Your task to perform on an android device: Go to eBay Image 0: 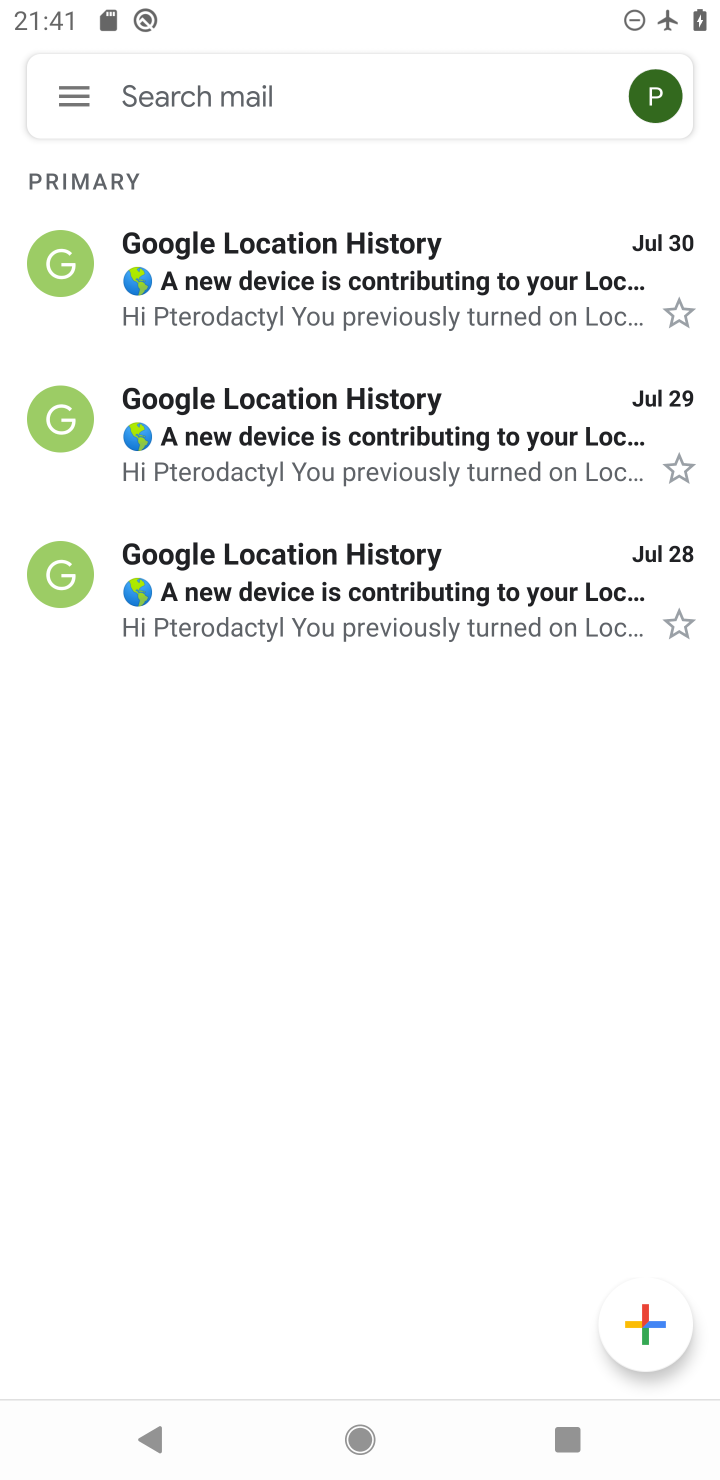
Step 0: press home button
Your task to perform on an android device: Go to eBay Image 1: 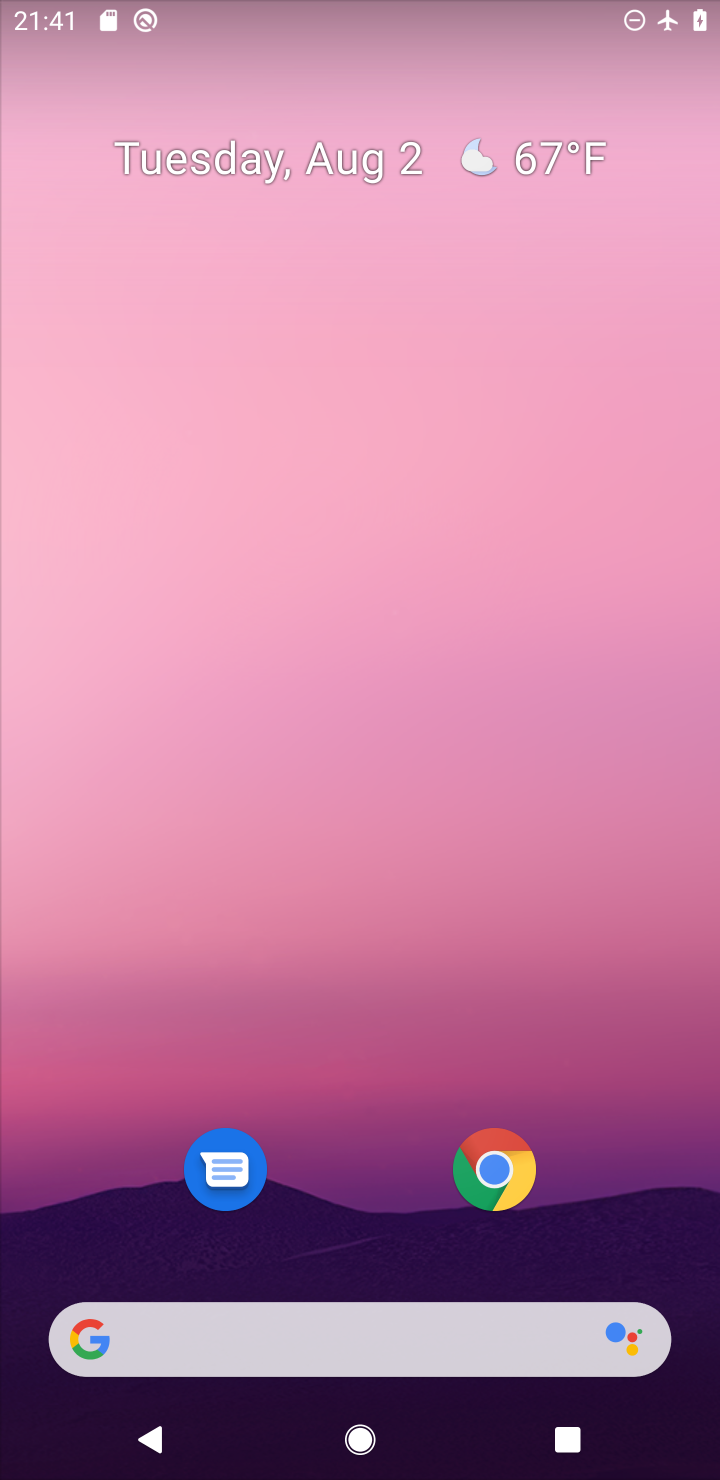
Step 1: drag from (375, 965) to (326, 69)
Your task to perform on an android device: Go to eBay Image 2: 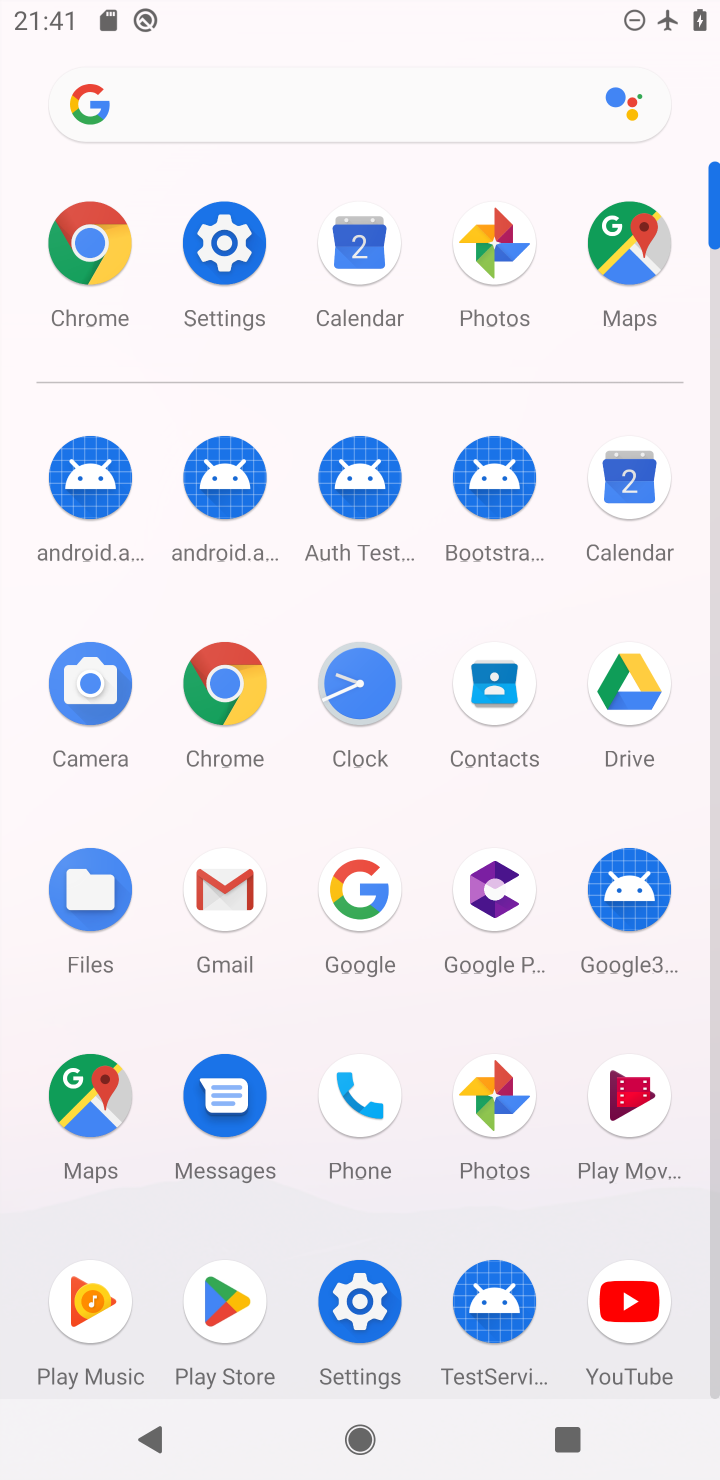
Step 2: click (77, 252)
Your task to perform on an android device: Go to eBay Image 3: 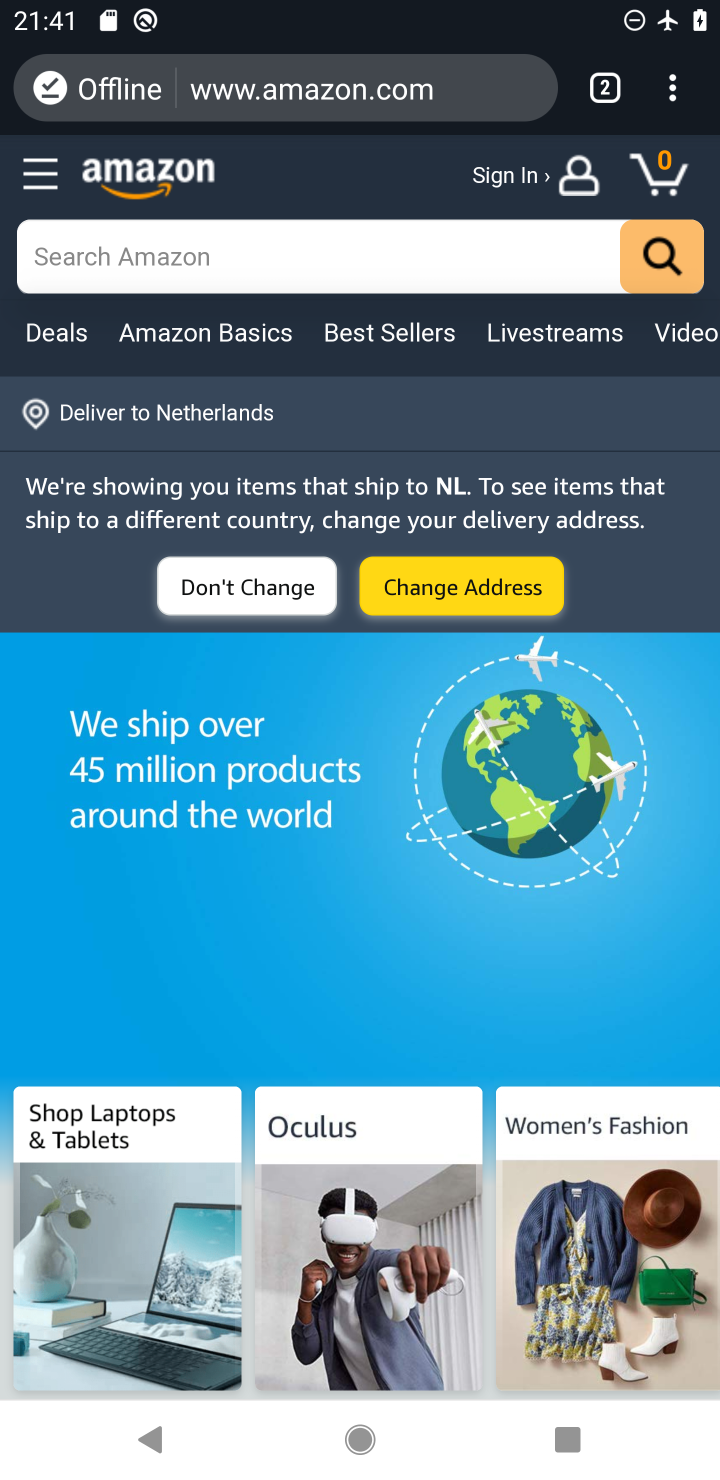
Step 3: click (676, 105)
Your task to perform on an android device: Go to eBay Image 4: 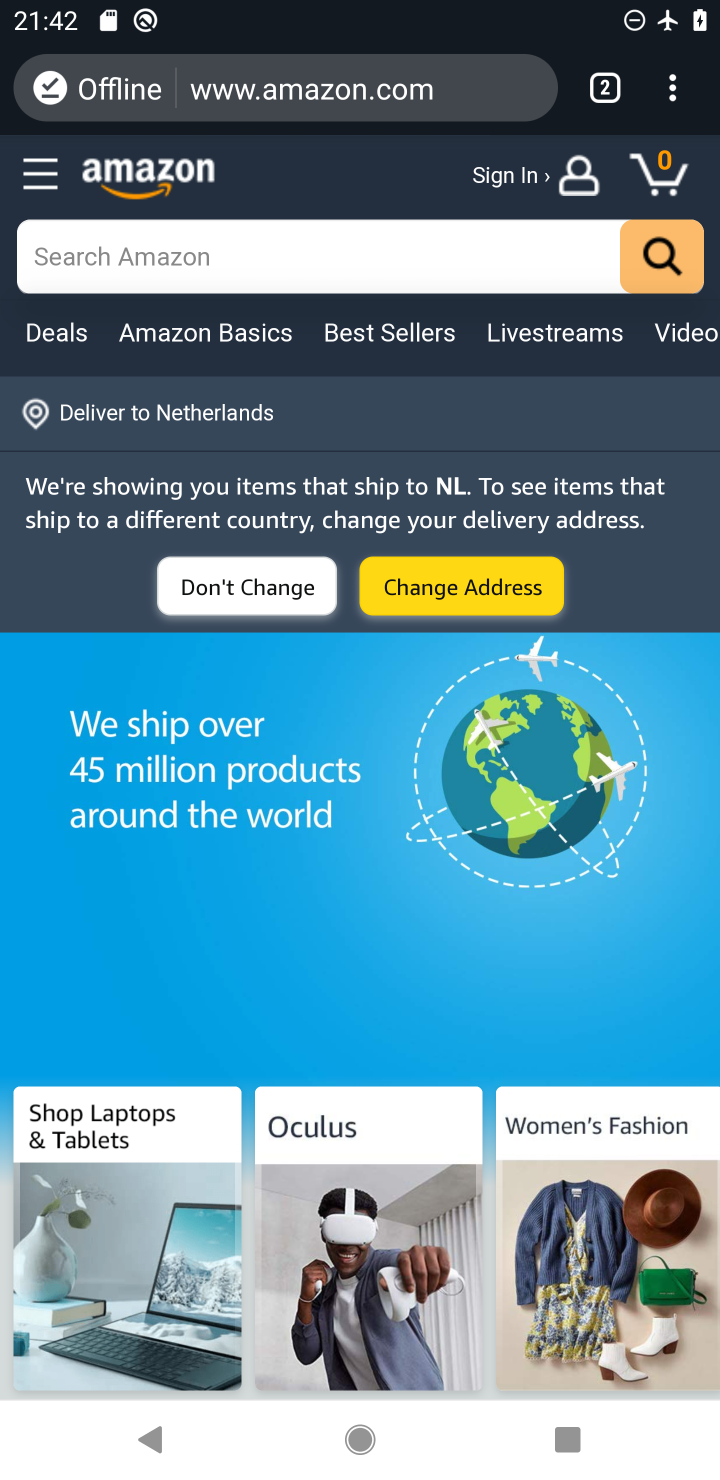
Step 4: drag from (676, 107) to (391, 177)
Your task to perform on an android device: Go to eBay Image 5: 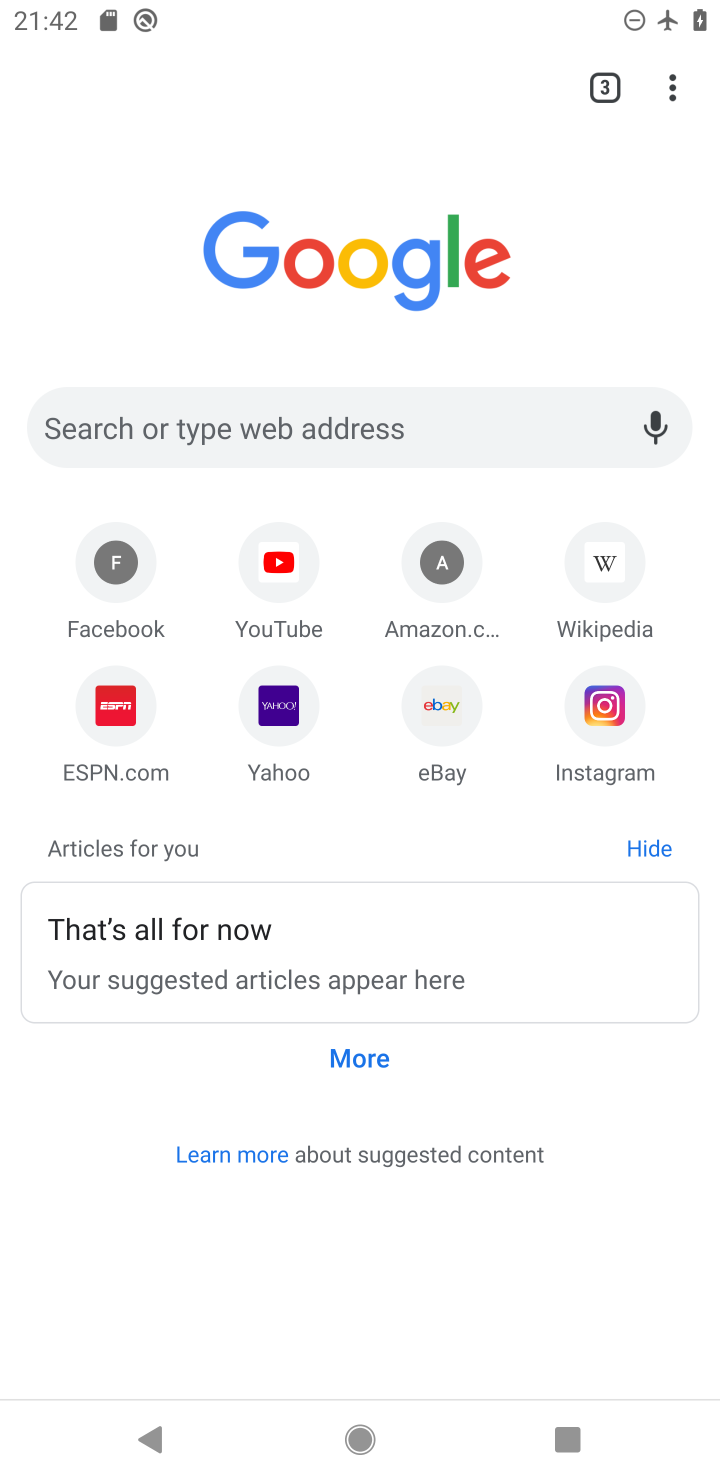
Step 5: click (439, 709)
Your task to perform on an android device: Go to eBay Image 6: 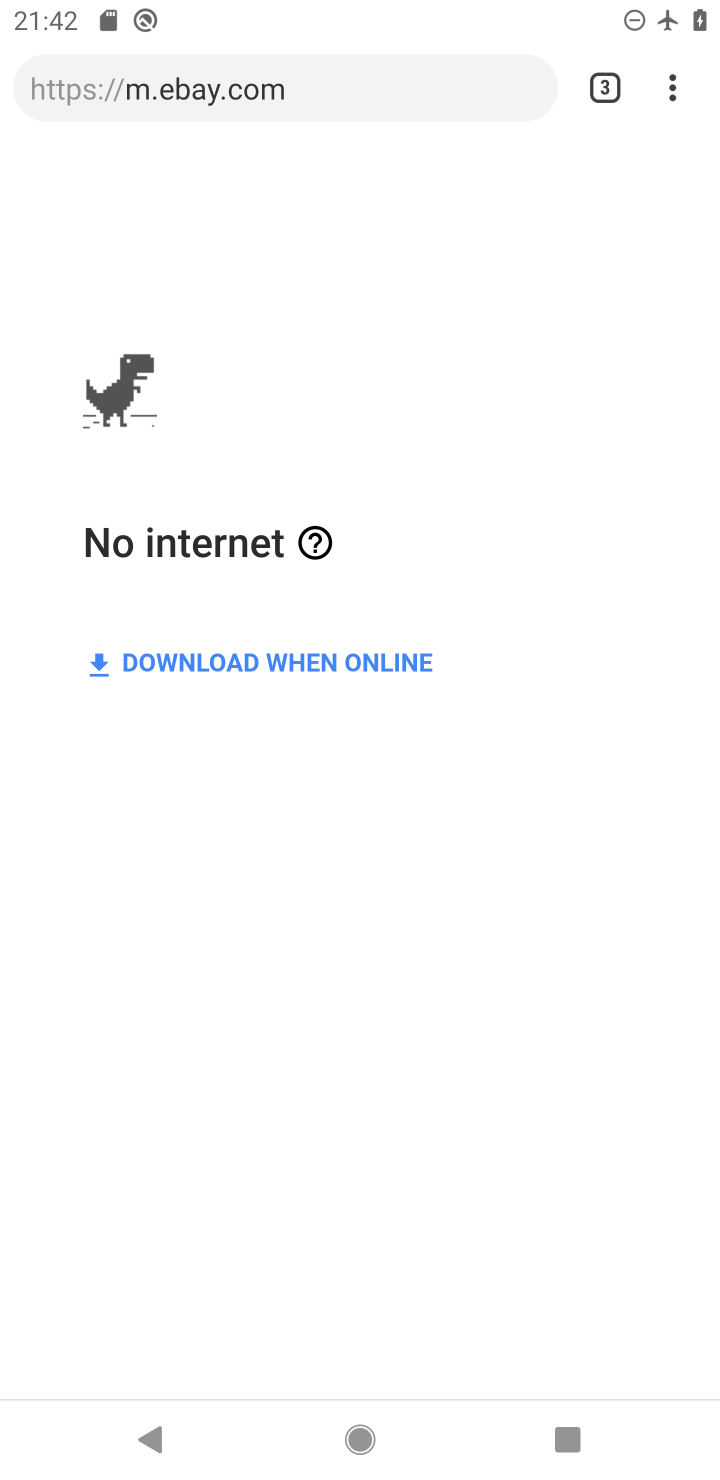
Step 6: task complete